Your task to perform on an android device: toggle location history Image 0: 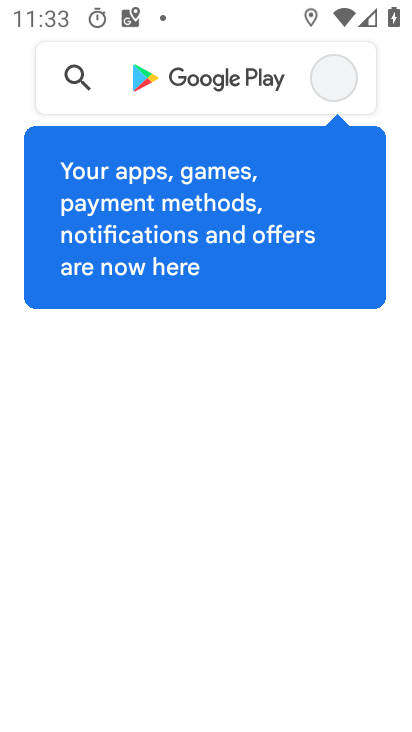
Step 0: press home button
Your task to perform on an android device: toggle location history Image 1: 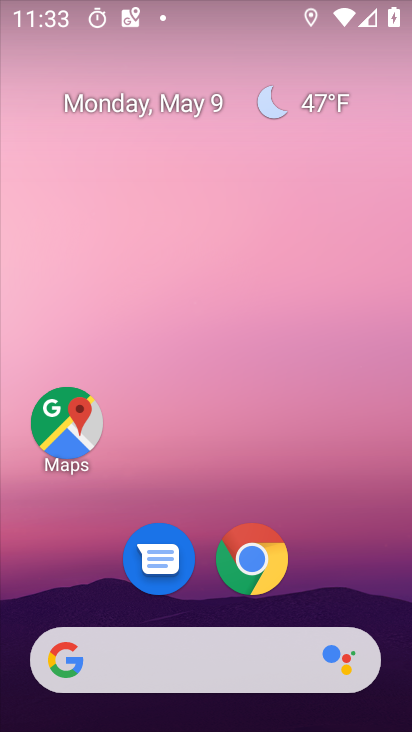
Step 1: drag from (365, 584) to (334, 165)
Your task to perform on an android device: toggle location history Image 2: 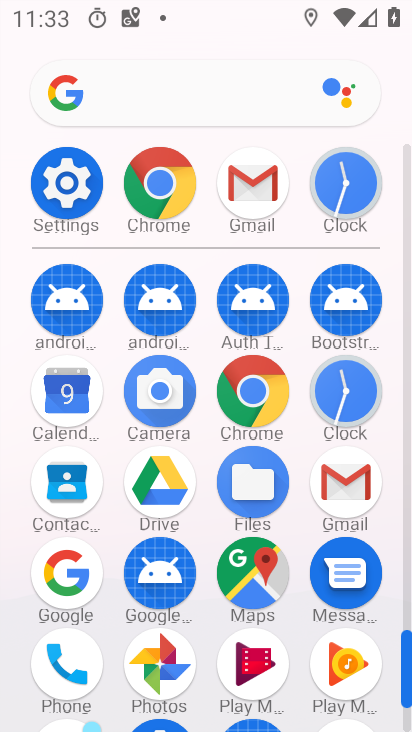
Step 2: click (244, 583)
Your task to perform on an android device: toggle location history Image 3: 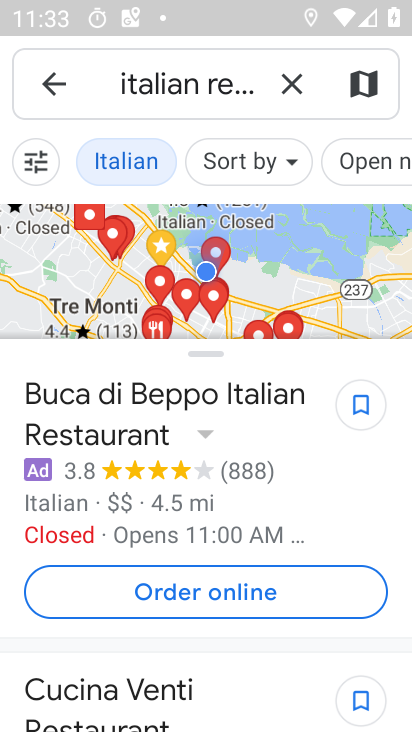
Step 3: click (29, 84)
Your task to perform on an android device: toggle location history Image 4: 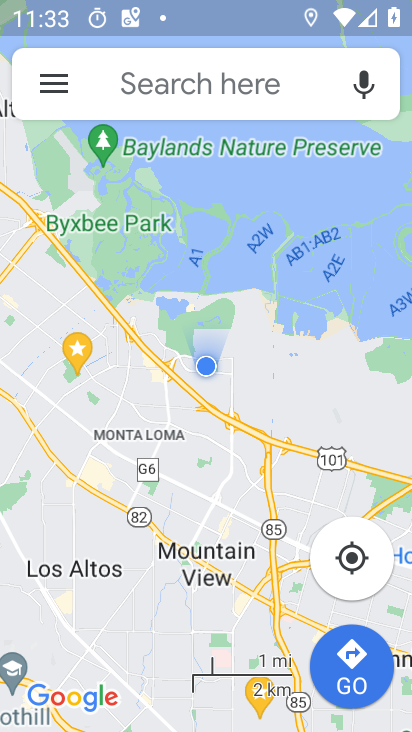
Step 4: click (29, 84)
Your task to perform on an android device: toggle location history Image 5: 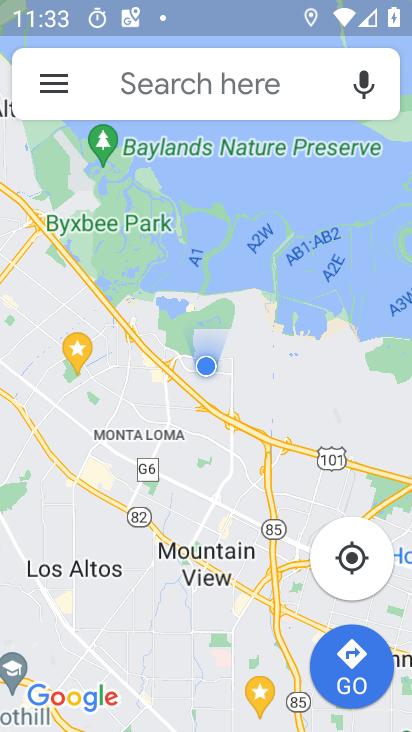
Step 5: click (53, 80)
Your task to perform on an android device: toggle location history Image 6: 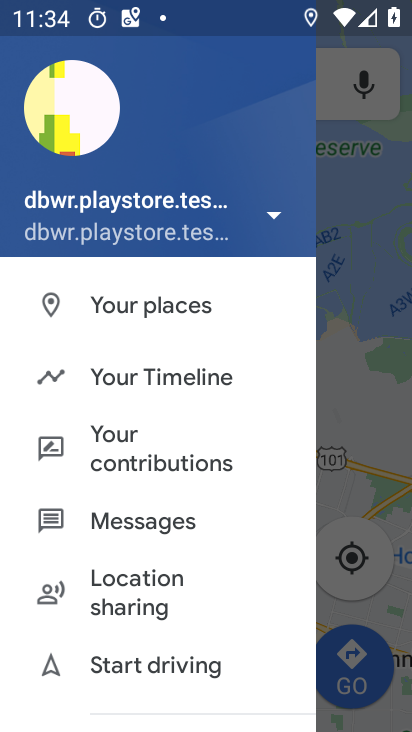
Step 6: click (147, 367)
Your task to perform on an android device: toggle location history Image 7: 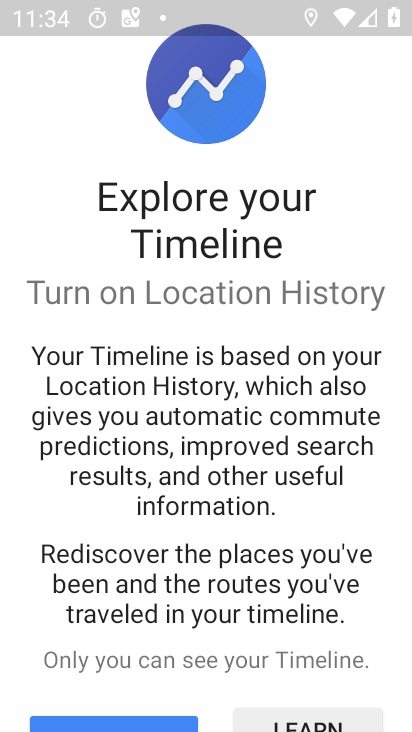
Step 7: drag from (202, 518) to (195, 60)
Your task to perform on an android device: toggle location history Image 8: 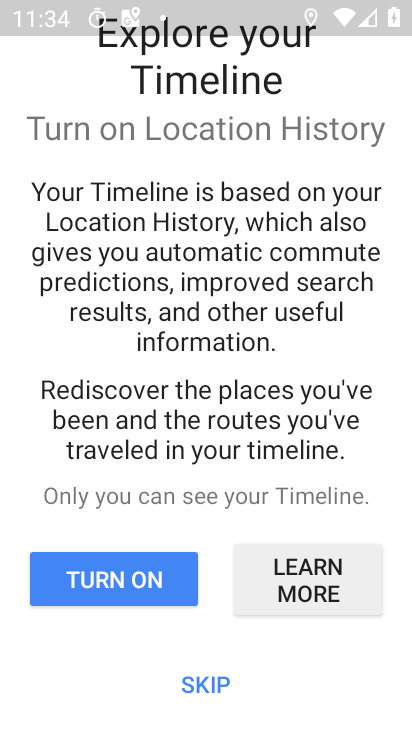
Step 8: click (137, 584)
Your task to perform on an android device: toggle location history Image 9: 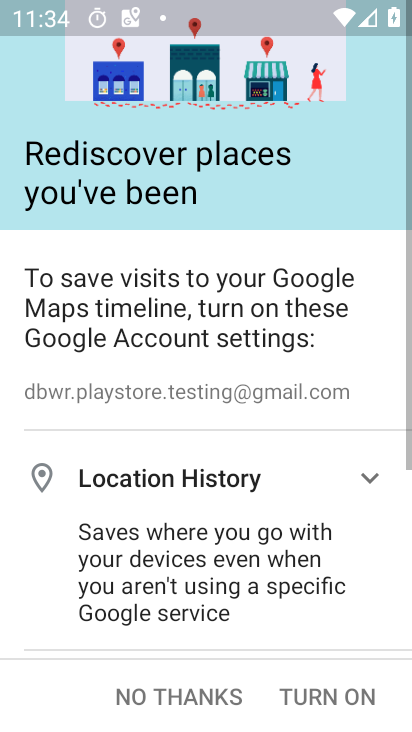
Step 9: drag from (248, 571) to (209, 294)
Your task to perform on an android device: toggle location history Image 10: 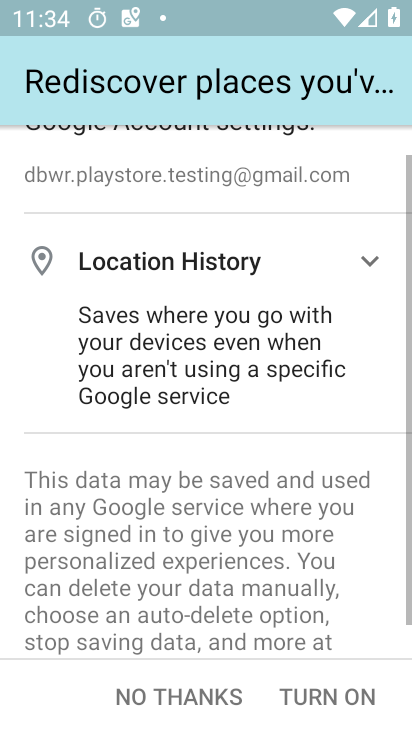
Step 10: drag from (252, 501) to (264, 284)
Your task to perform on an android device: toggle location history Image 11: 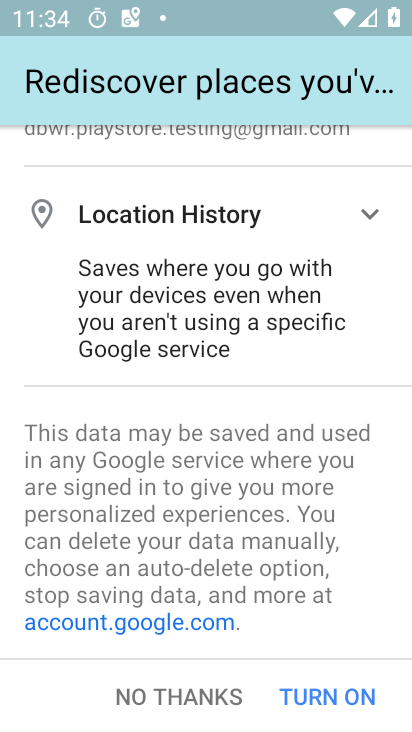
Step 11: click (312, 699)
Your task to perform on an android device: toggle location history Image 12: 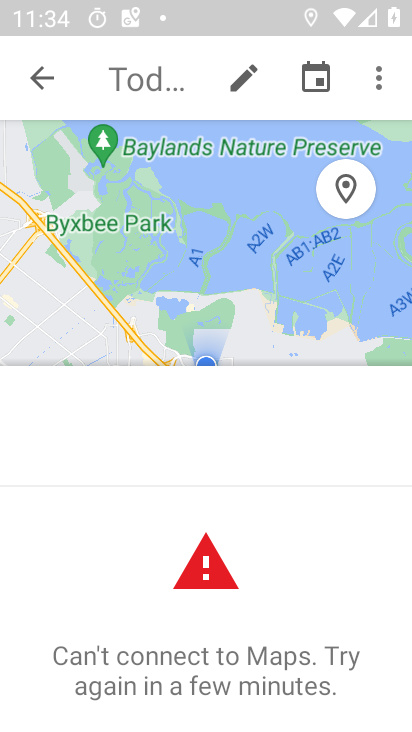
Step 12: task complete